Your task to perform on an android device: turn vacation reply on in the gmail app Image 0: 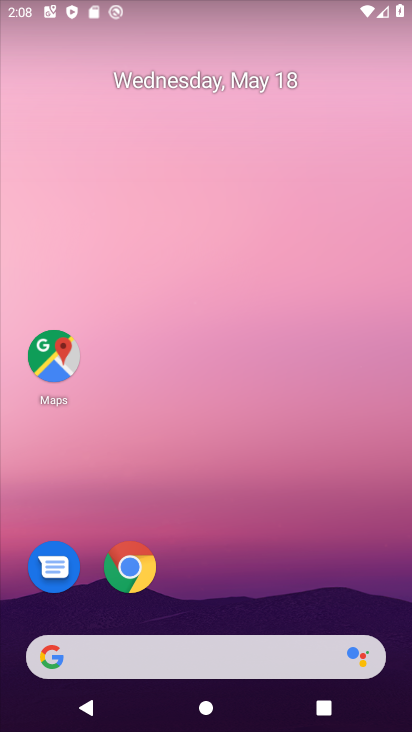
Step 0: drag from (197, 608) to (244, 167)
Your task to perform on an android device: turn vacation reply on in the gmail app Image 1: 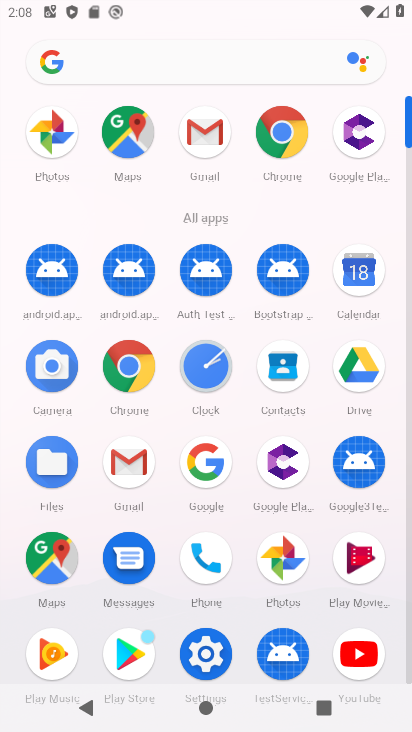
Step 1: click (130, 475)
Your task to perform on an android device: turn vacation reply on in the gmail app Image 2: 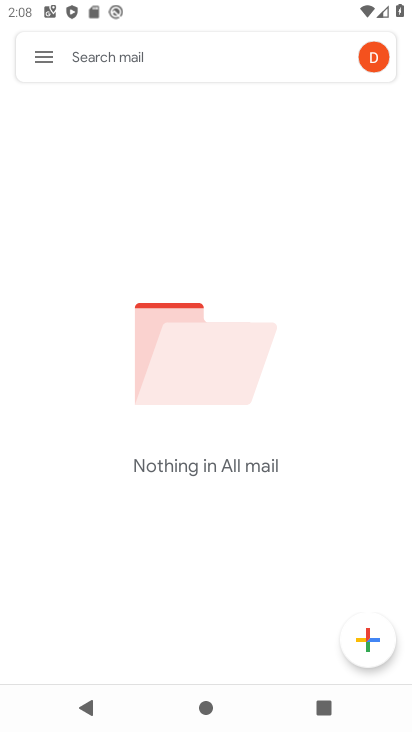
Step 2: click (38, 64)
Your task to perform on an android device: turn vacation reply on in the gmail app Image 3: 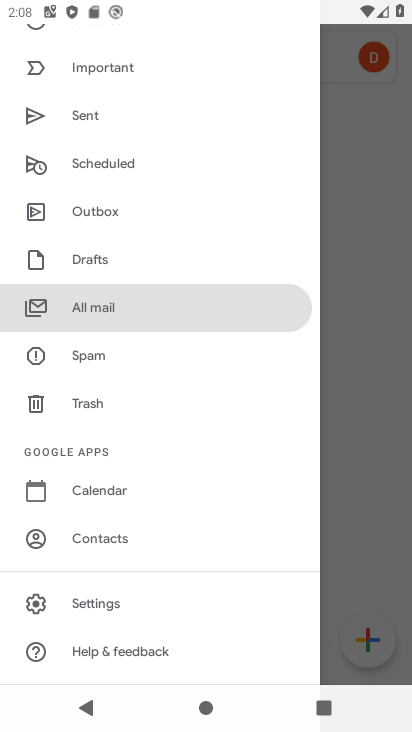
Step 3: click (116, 604)
Your task to perform on an android device: turn vacation reply on in the gmail app Image 4: 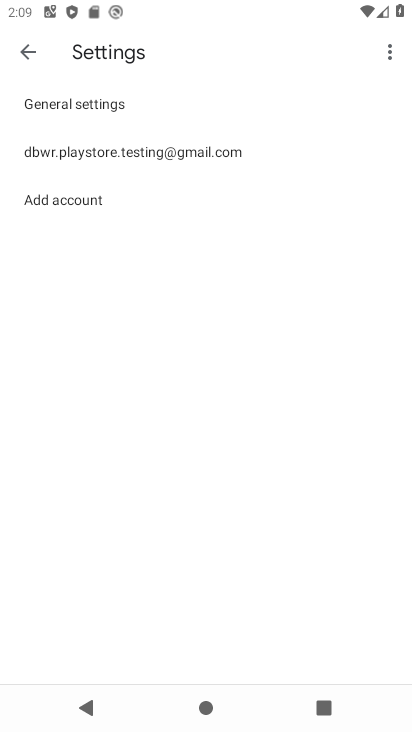
Step 4: click (115, 162)
Your task to perform on an android device: turn vacation reply on in the gmail app Image 5: 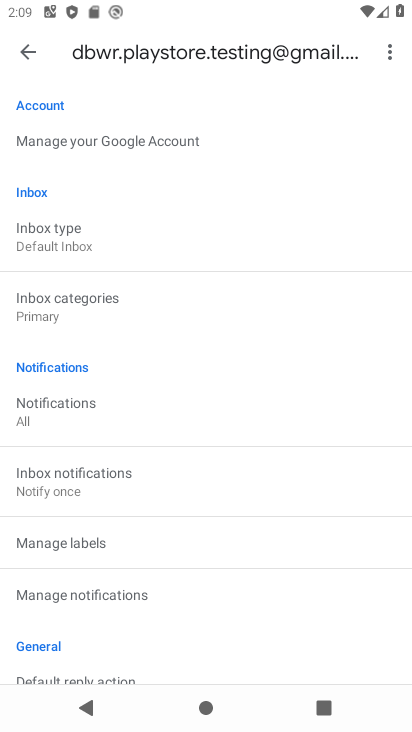
Step 5: drag from (96, 485) to (126, 319)
Your task to perform on an android device: turn vacation reply on in the gmail app Image 6: 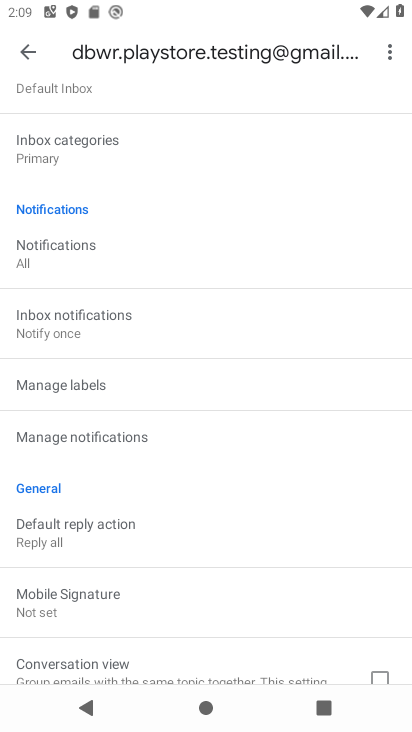
Step 6: drag from (114, 534) to (127, 363)
Your task to perform on an android device: turn vacation reply on in the gmail app Image 7: 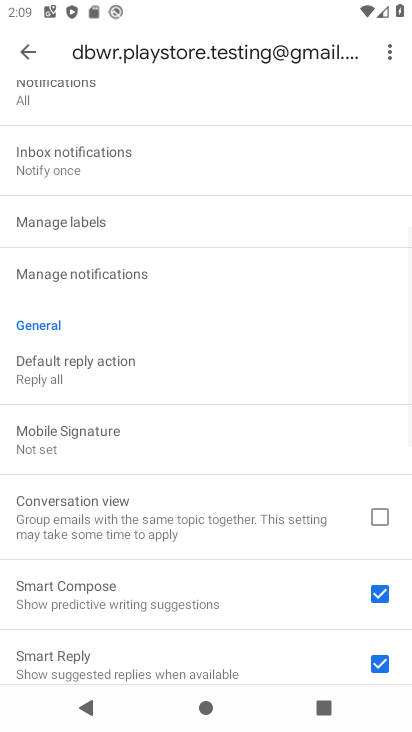
Step 7: drag from (140, 533) to (197, 212)
Your task to perform on an android device: turn vacation reply on in the gmail app Image 8: 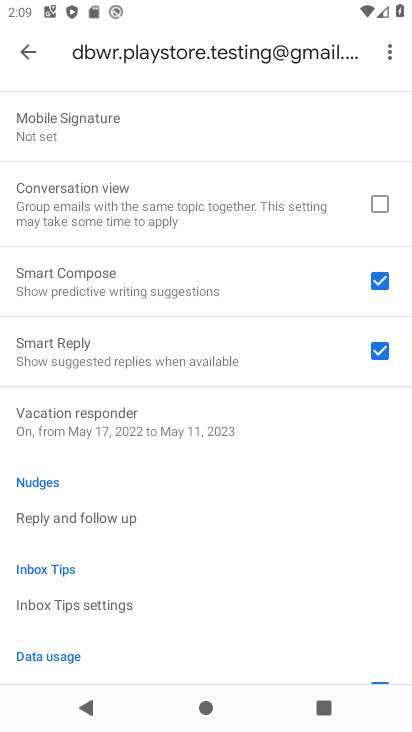
Step 8: click (181, 428)
Your task to perform on an android device: turn vacation reply on in the gmail app Image 9: 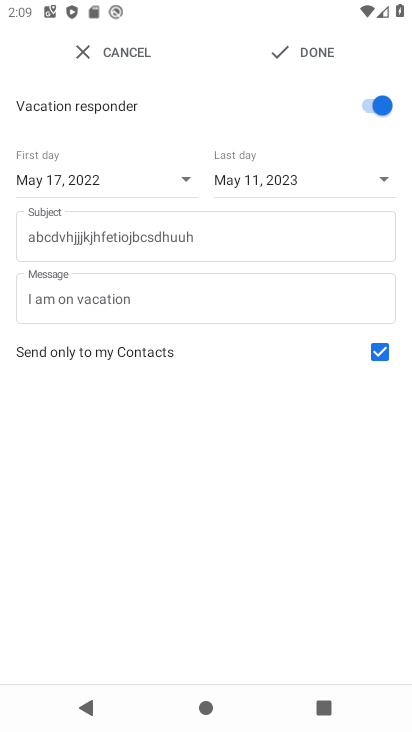
Step 9: task complete